Your task to perform on an android device: Open privacy settings Image 0: 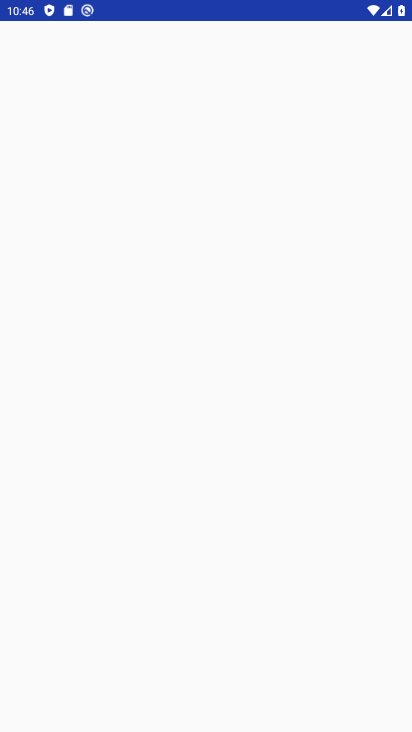
Step 0: press home button
Your task to perform on an android device: Open privacy settings Image 1: 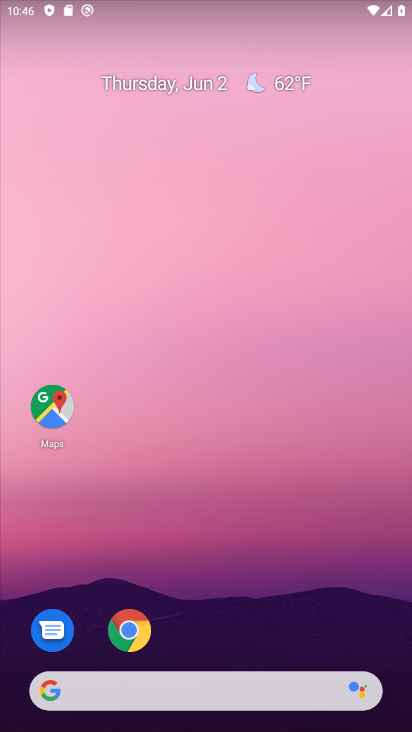
Step 1: drag from (189, 661) to (328, 83)
Your task to perform on an android device: Open privacy settings Image 2: 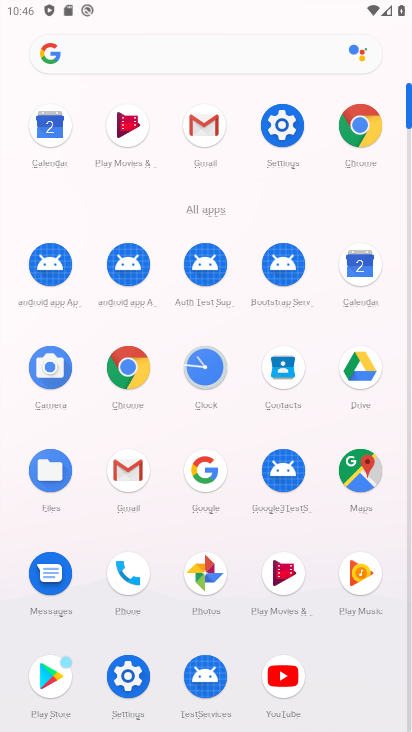
Step 2: click (288, 130)
Your task to perform on an android device: Open privacy settings Image 3: 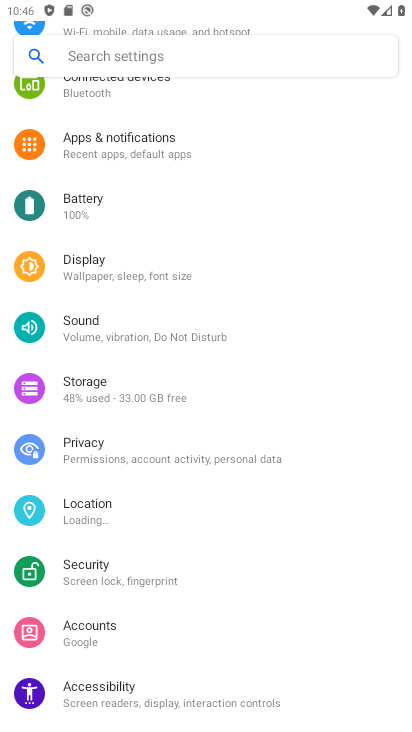
Step 3: click (83, 448)
Your task to perform on an android device: Open privacy settings Image 4: 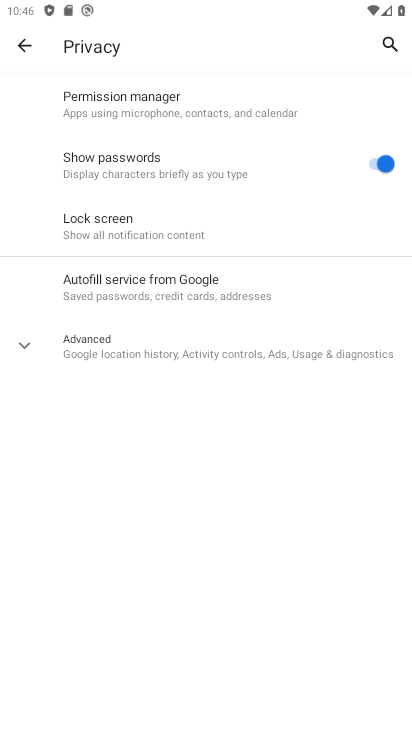
Step 4: task complete